Your task to perform on an android device: check the backup settings in the google photos Image 0: 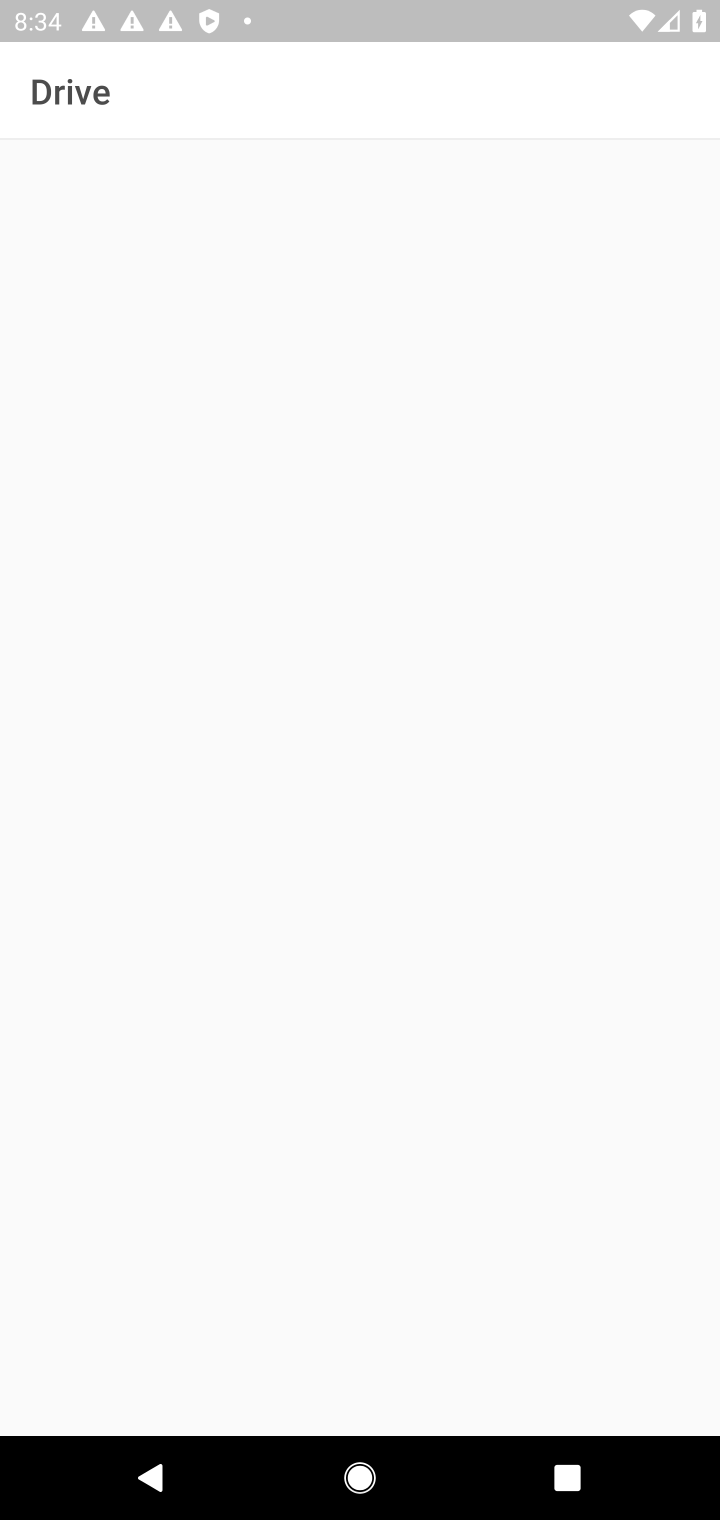
Step 0: click (186, 1255)
Your task to perform on an android device: check the backup settings in the google photos Image 1: 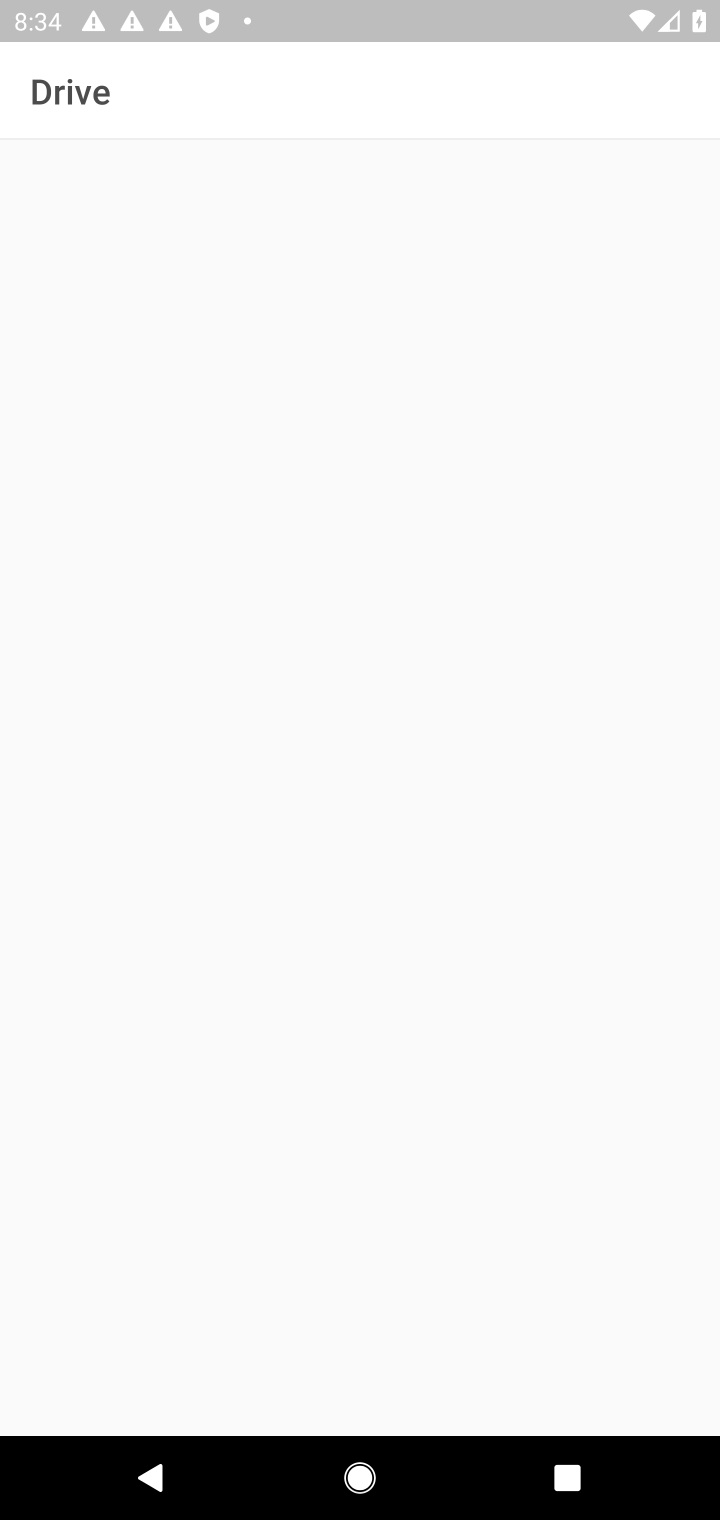
Step 1: press home button
Your task to perform on an android device: check the backup settings in the google photos Image 2: 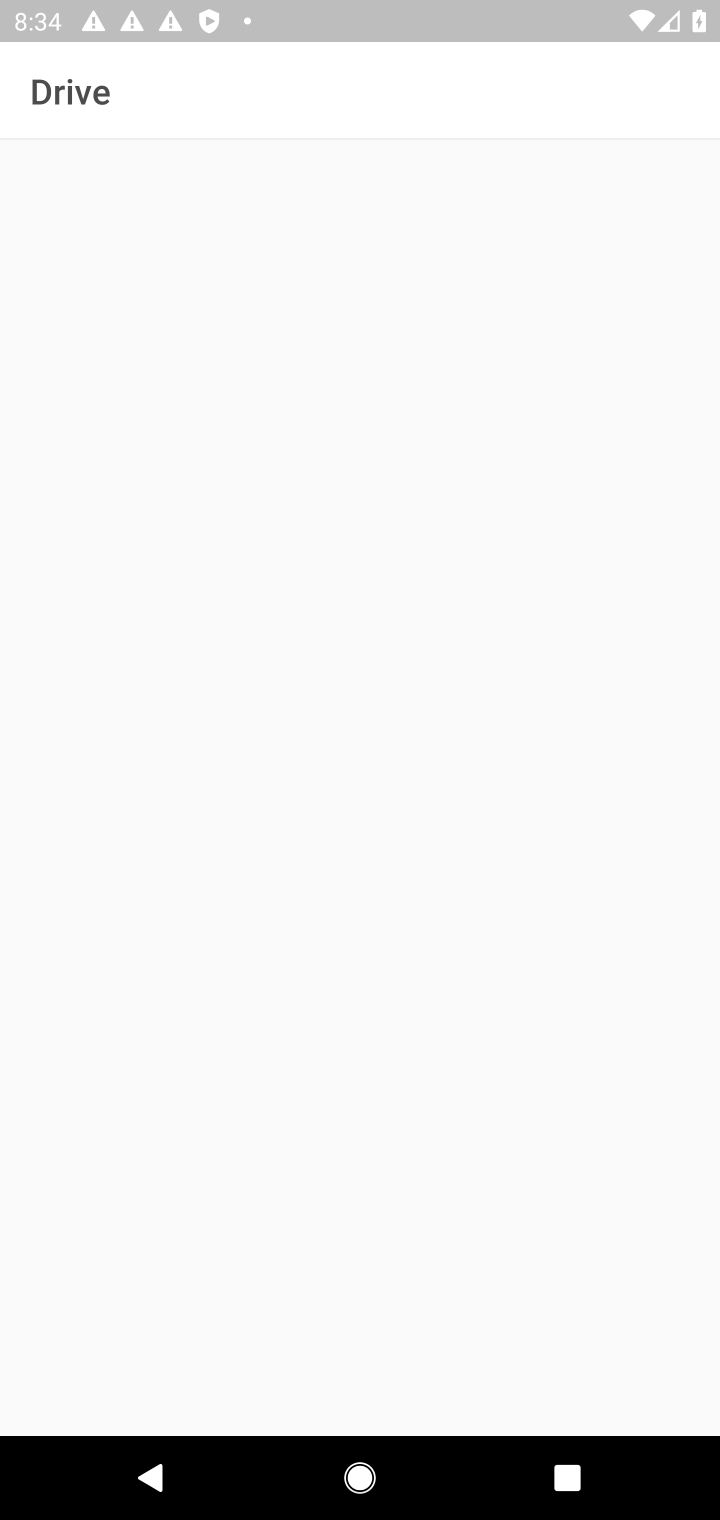
Step 2: press home button
Your task to perform on an android device: check the backup settings in the google photos Image 3: 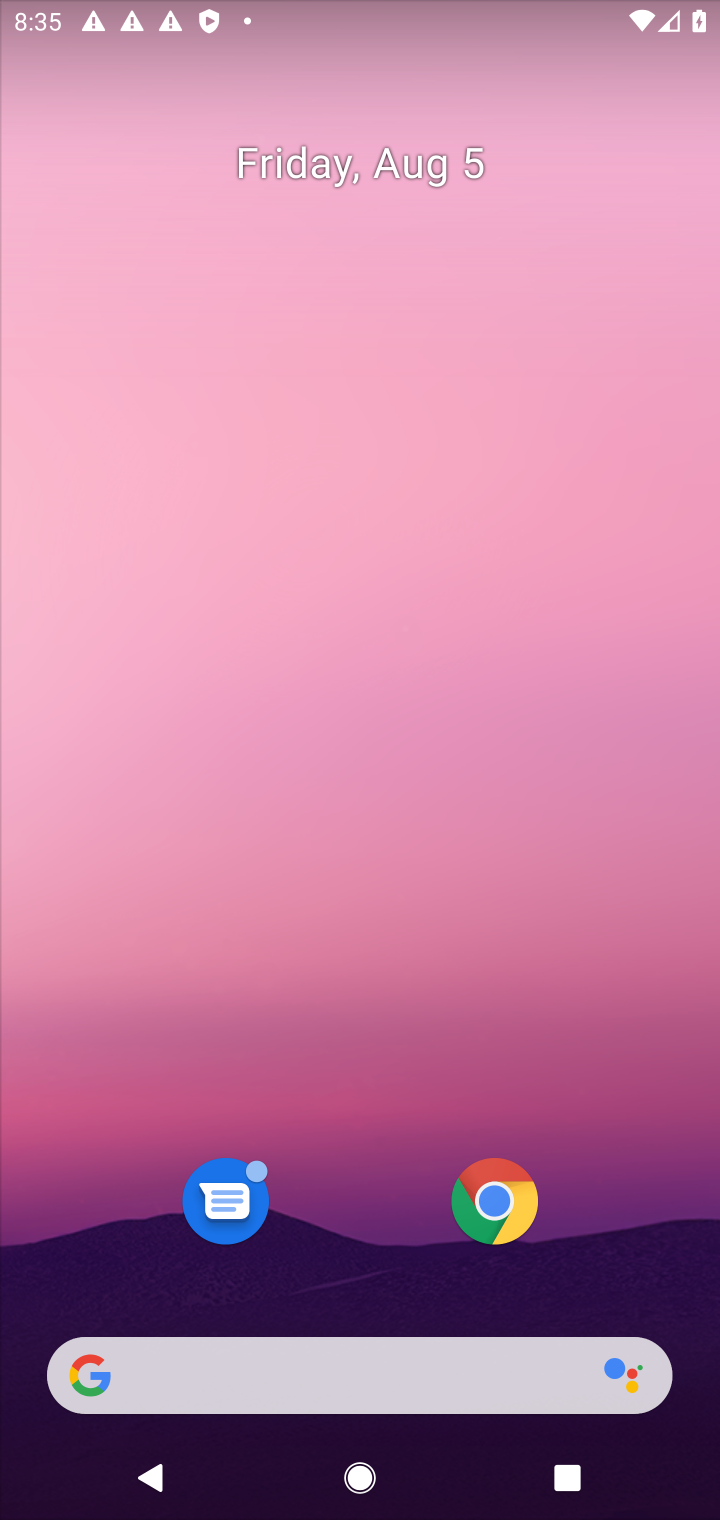
Step 3: drag from (404, 1182) to (372, 519)
Your task to perform on an android device: check the backup settings in the google photos Image 4: 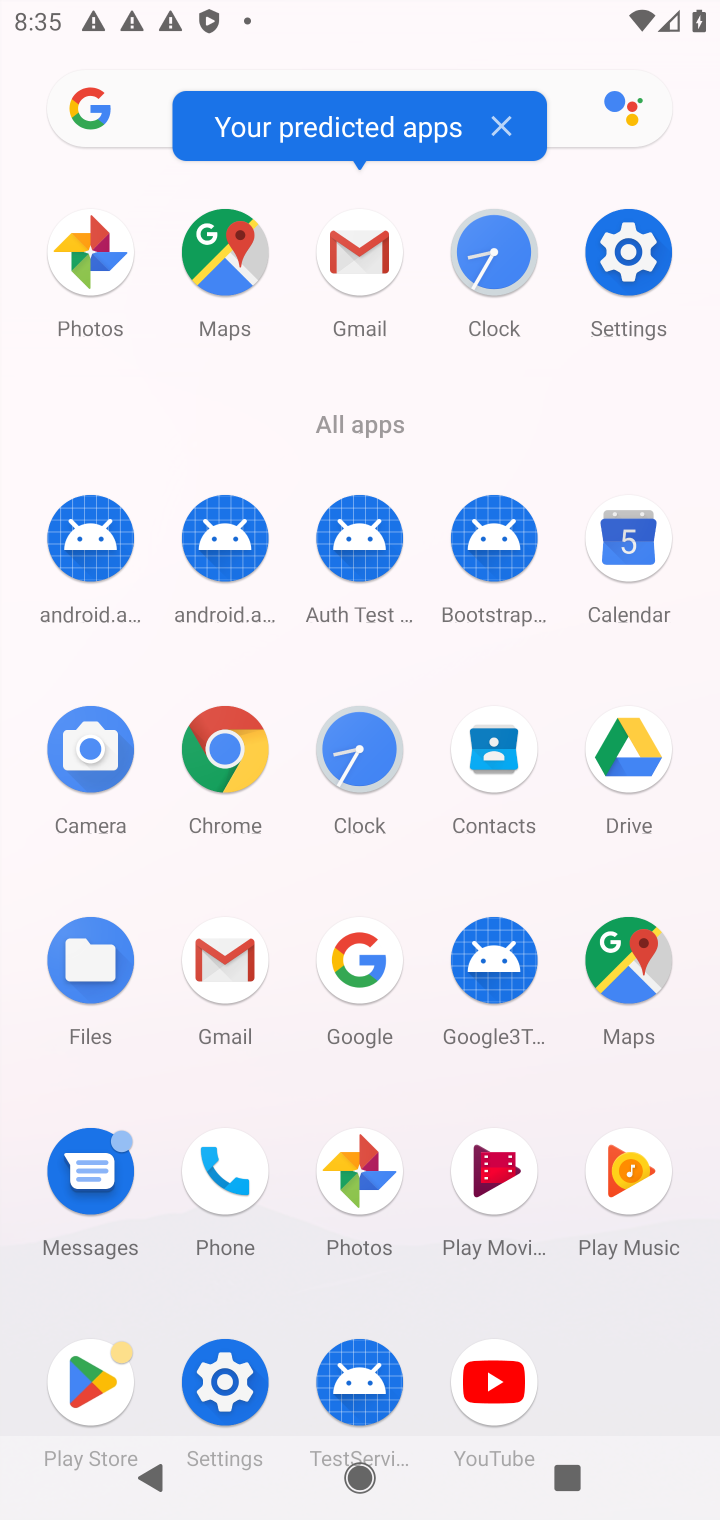
Step 4: click (348, 1154)
Your task to perform on an android device: check the backup settings in the google photos Image 5: 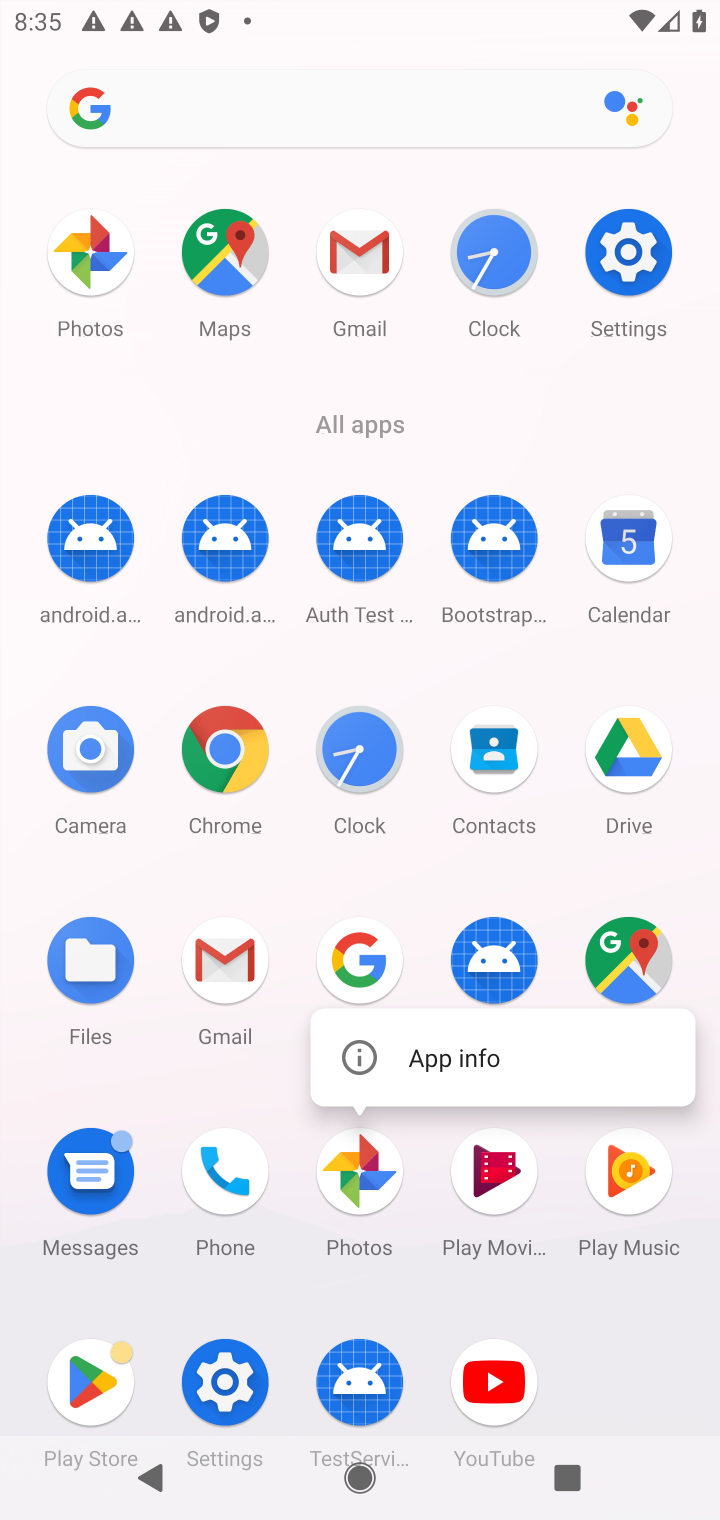
Step 5: click (412, 1066)
Your task to perform on an android device: check the backup settings in the google photos Image 6: 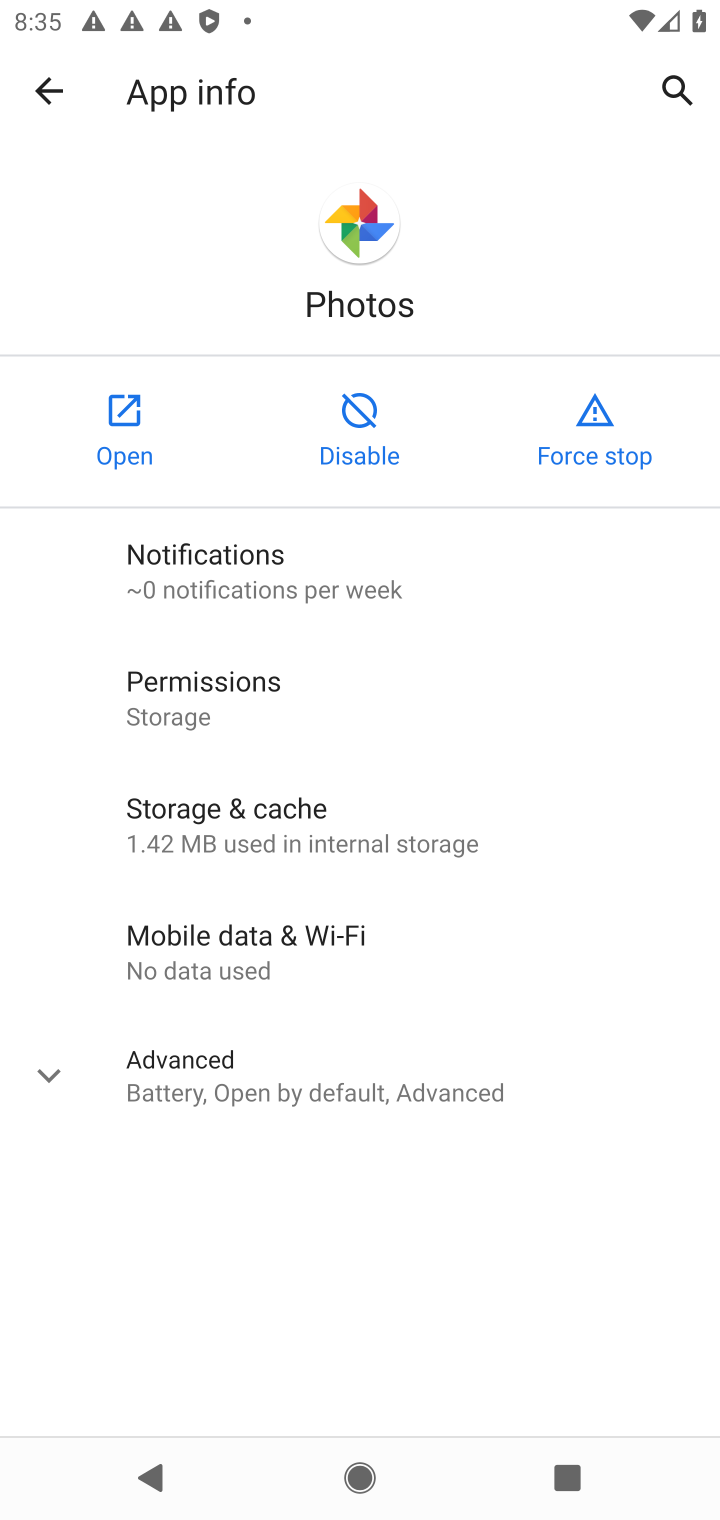
Step 6: click (134, 422)
Your task to perform on an android device: check the backup settings in the google photos Image 7: 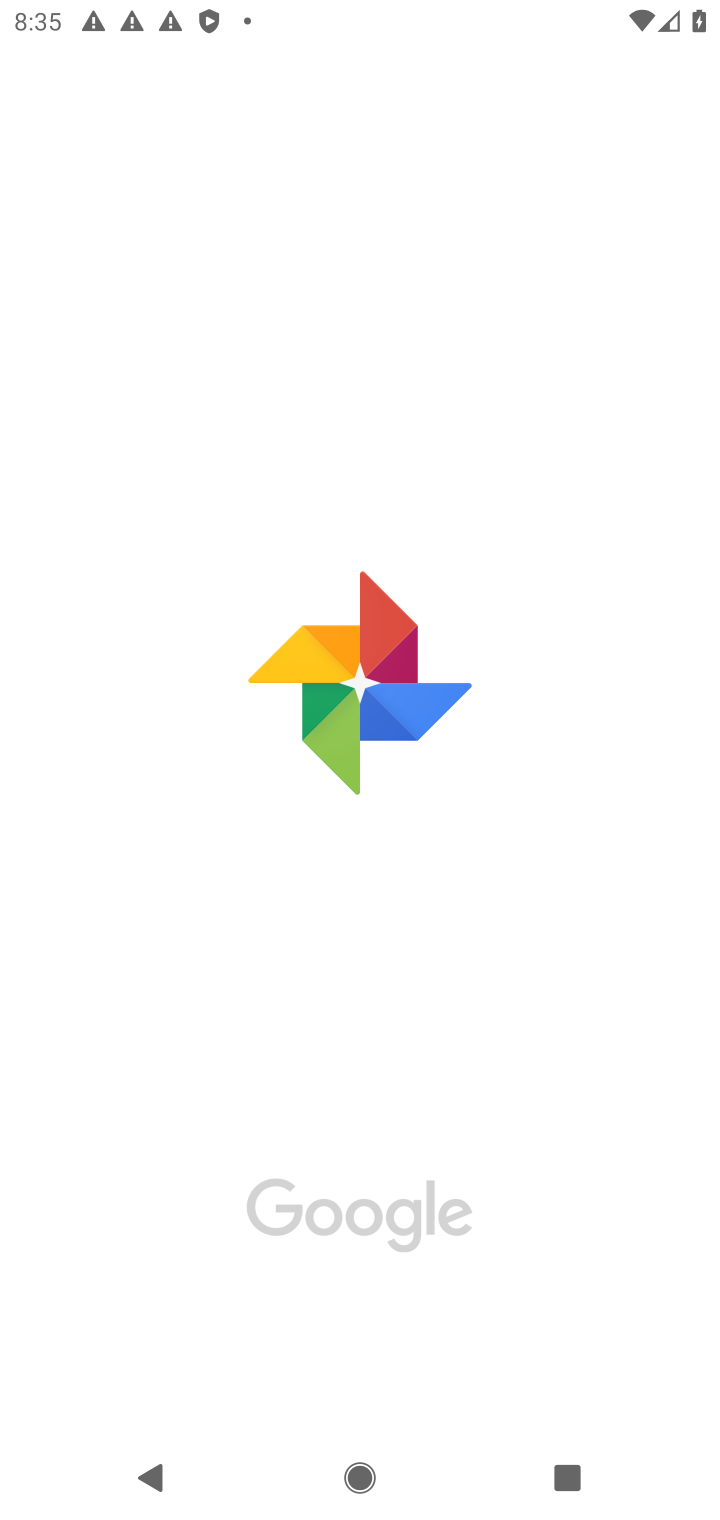
Step 7: click (99, 424)
Your task to perform on an android device: check the backup settings in the google photos Image 8: 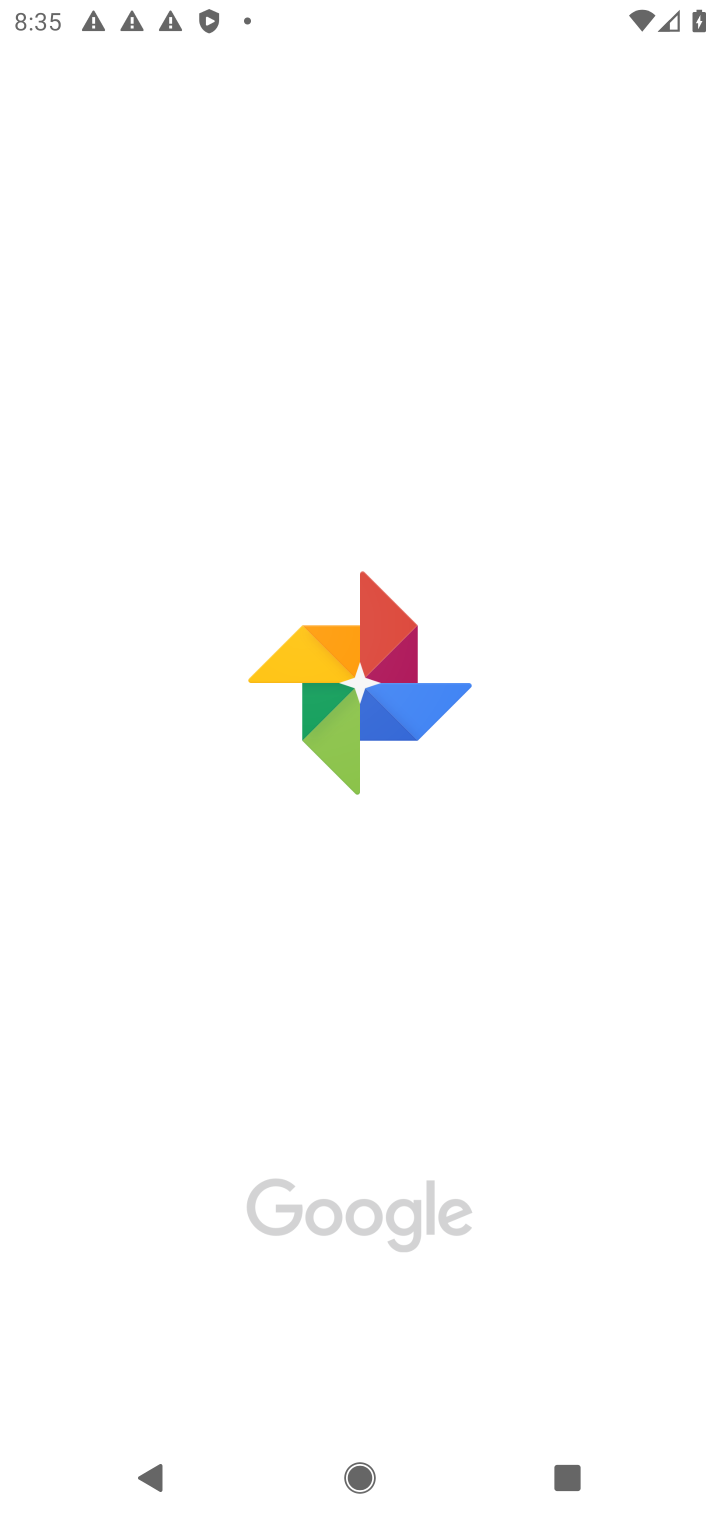
Step 8: drag from (252, 974) to (306, 498)
Your task to perform on an android device: check the backup settings in the google photos Image 9: 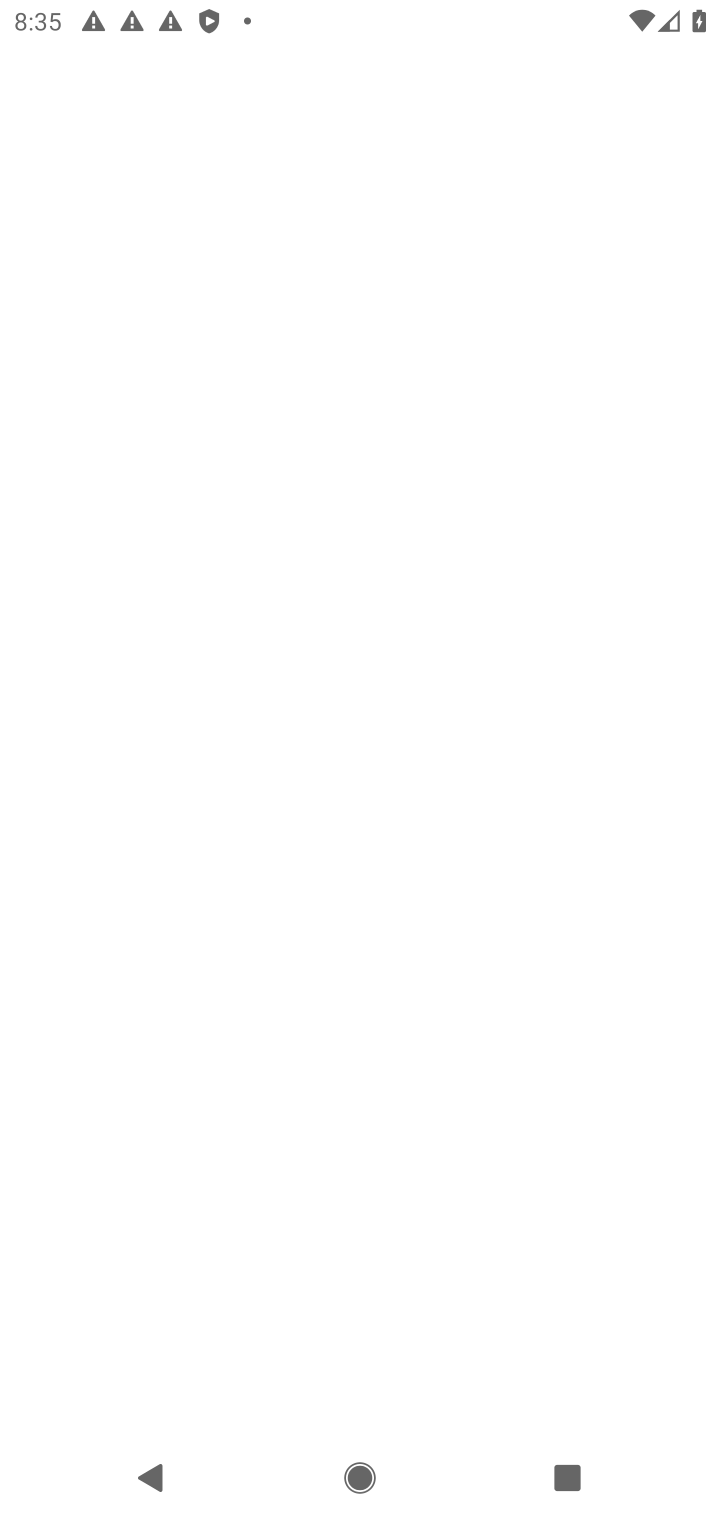
Step 9: drag from (149, 936) to (278, 433)
Your task to perform on an android device: check the backup settings in the google photos Image 10: 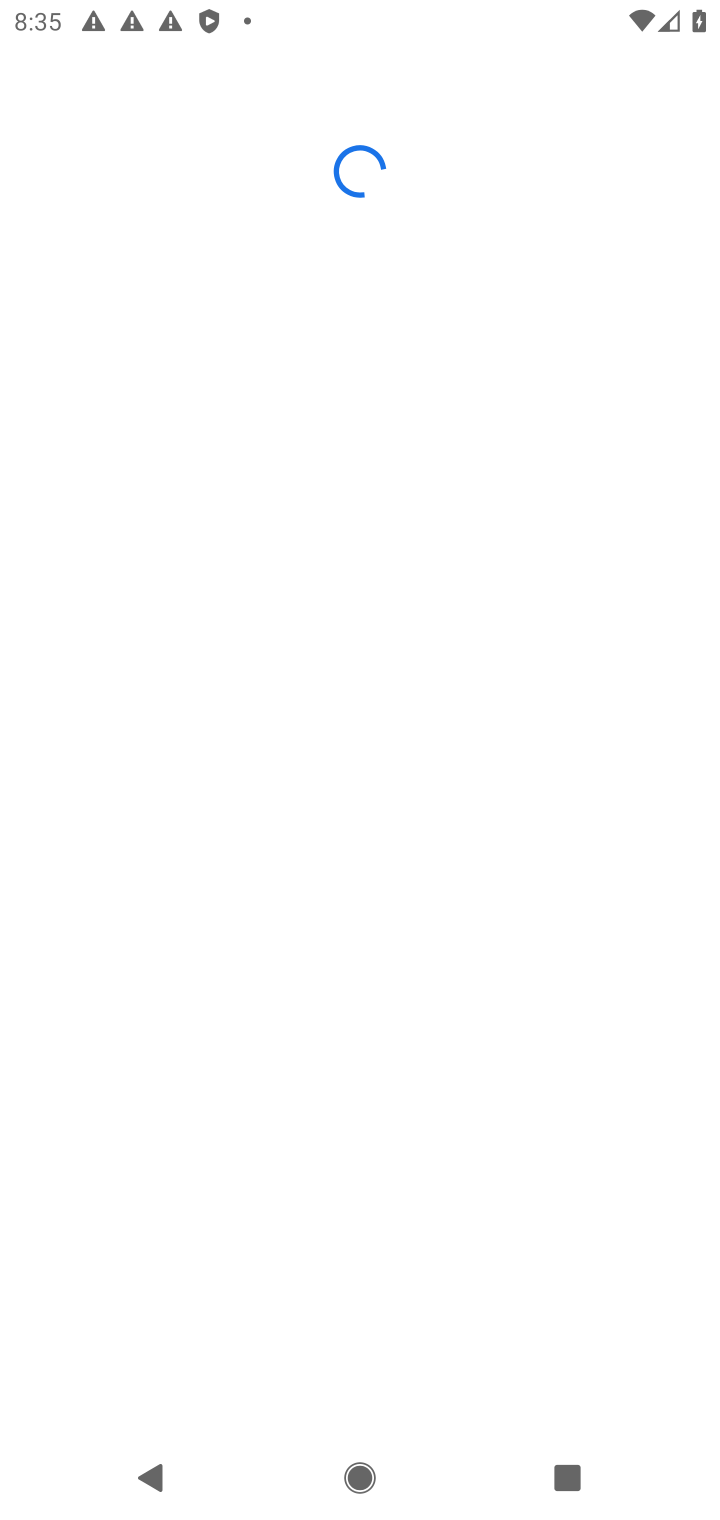
Step 10: drag from (369, 450) to (458, 1018)
Your task to perform on an android device: check the backup settings in the google photos Image 11: 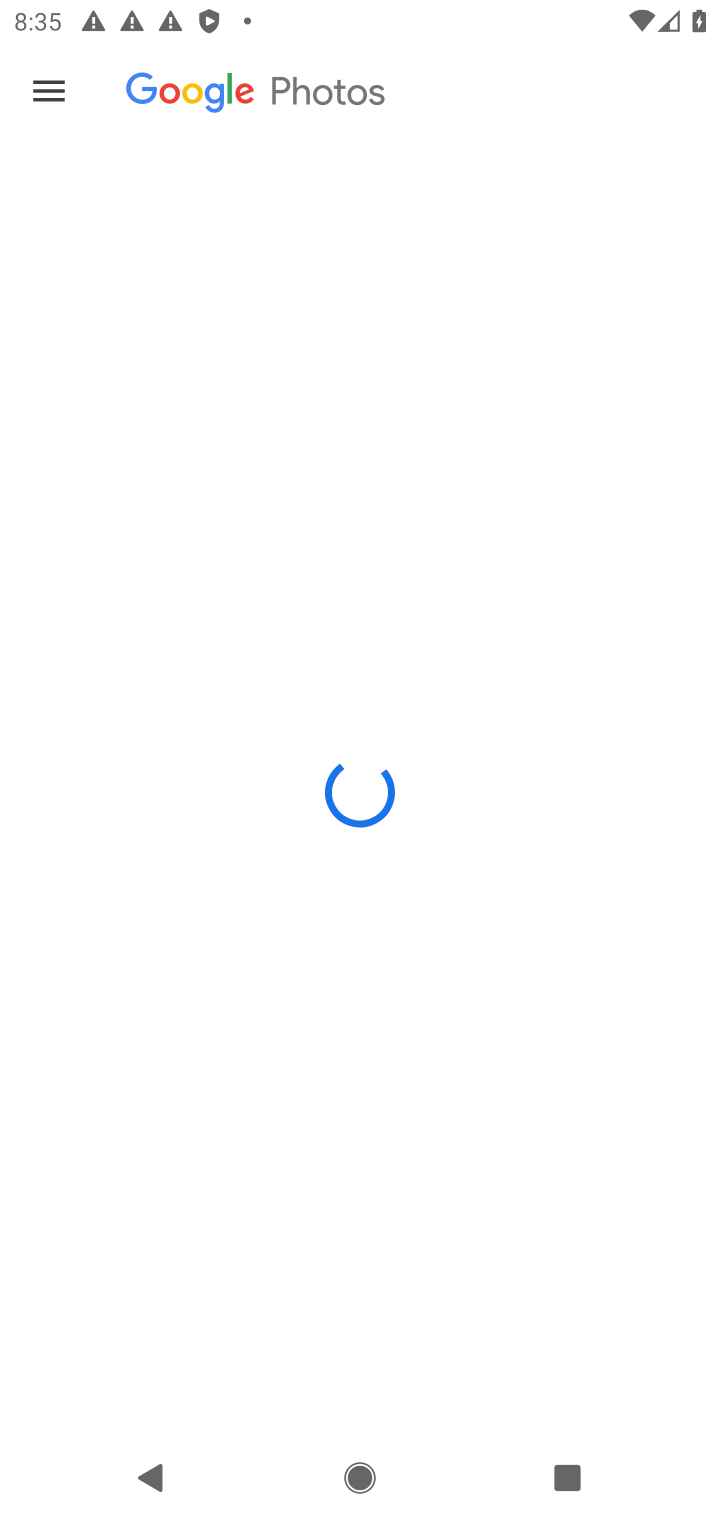
Step 11: click (46, 77)
Your task to perform on an android device: check the backup settings in the google photos Image 12: 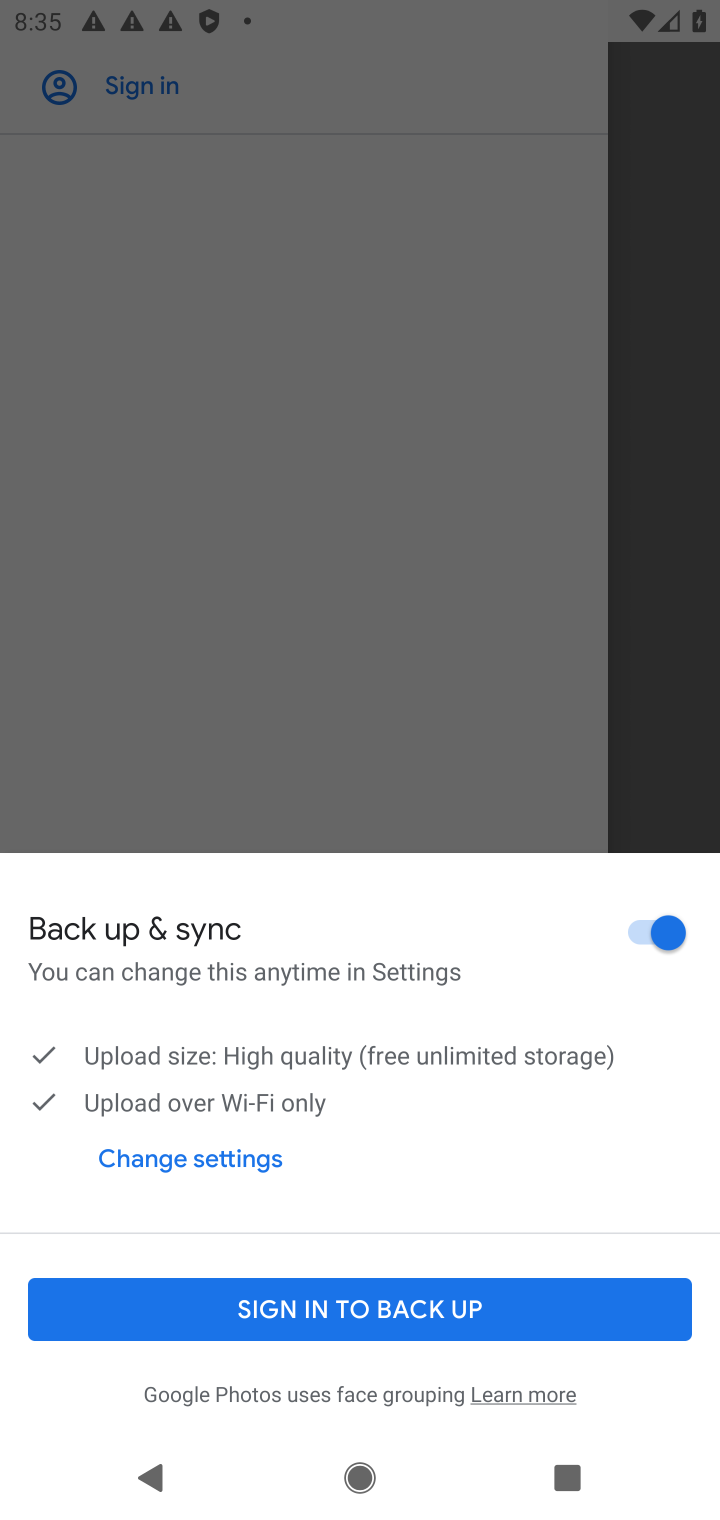
Step 12: click (370, 1249)
Your task to perform on an android device: check the backup settings in the google photos Image 13: 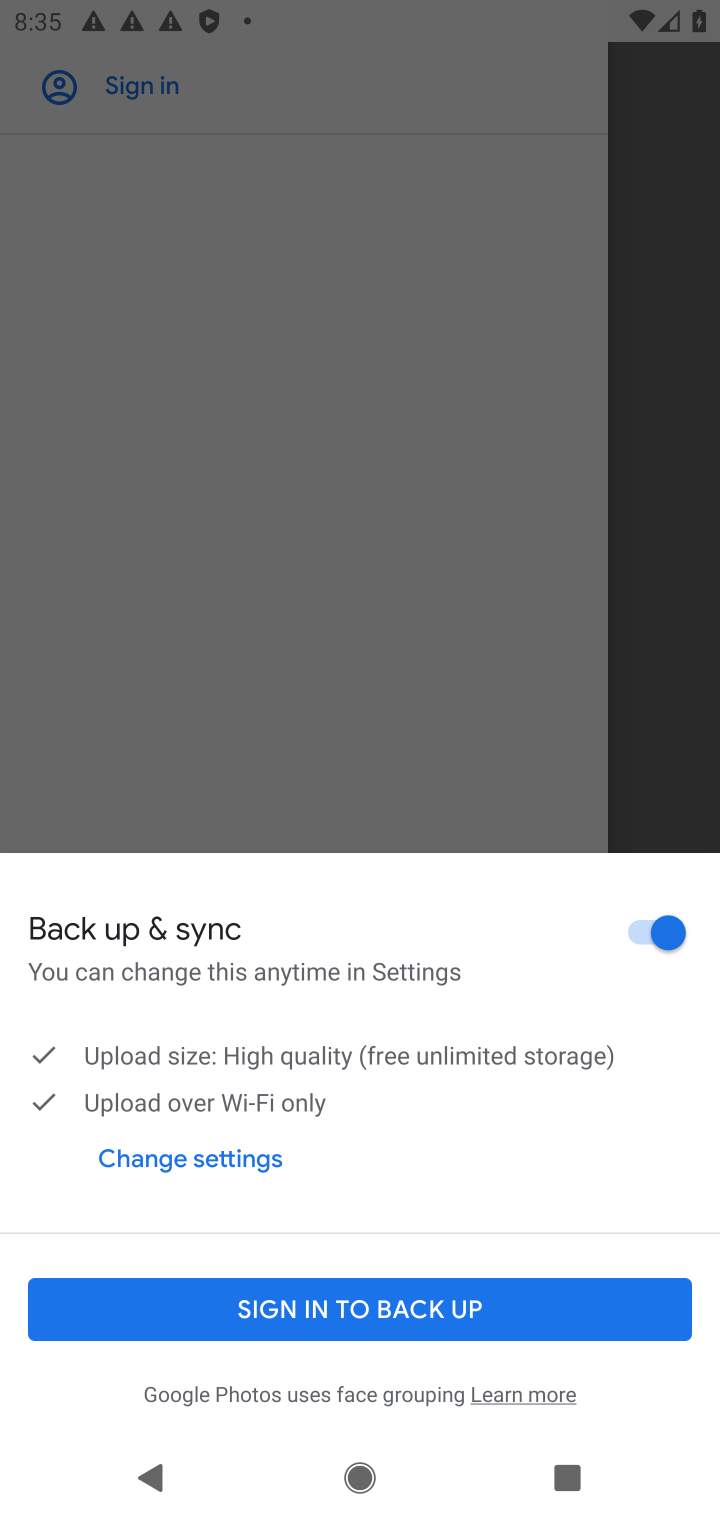
Step 13: click (340, 1293)
Your task to perform on an android device: check the backup settings in the google photos Image 14: 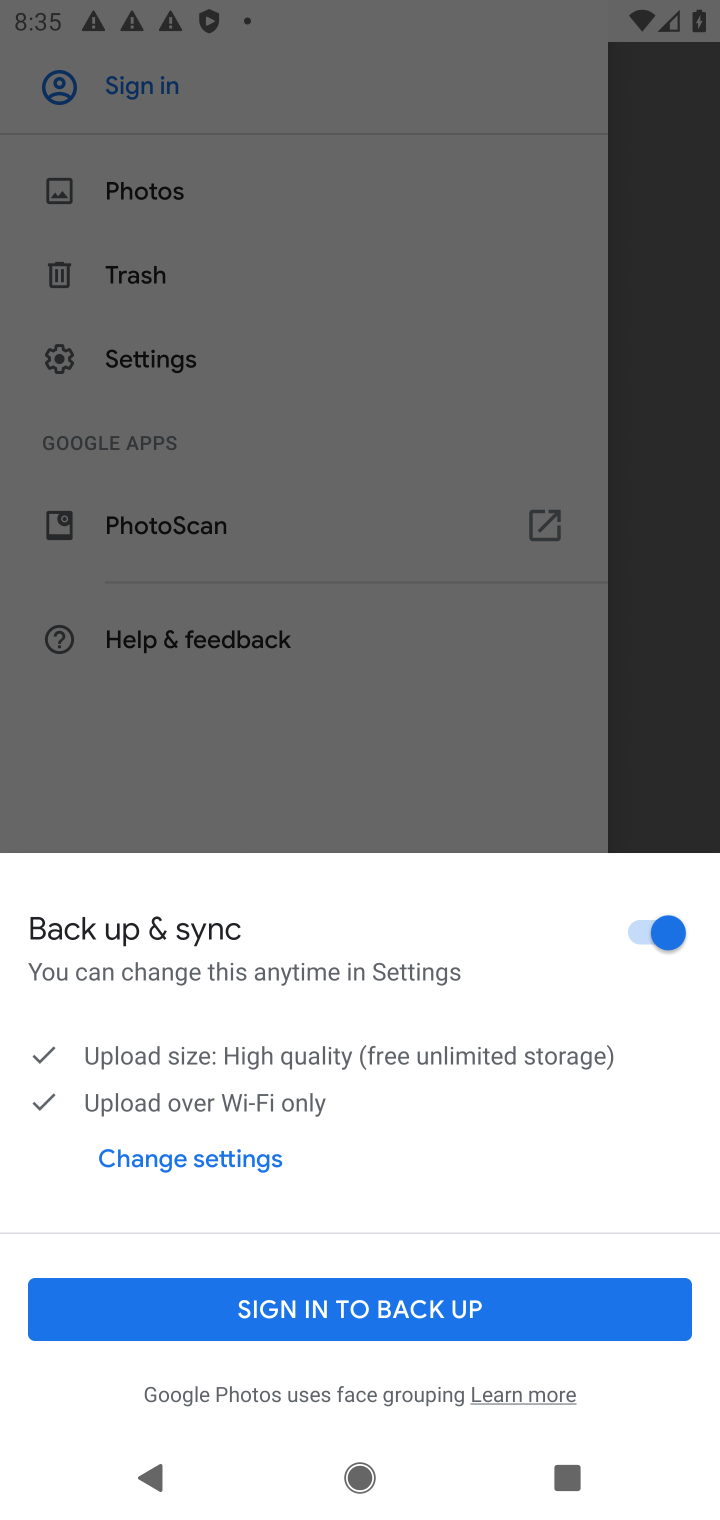
Step 14: click (347, 1295)
Your task to perform on an android device: check the backup settings in the google photos Image 15: 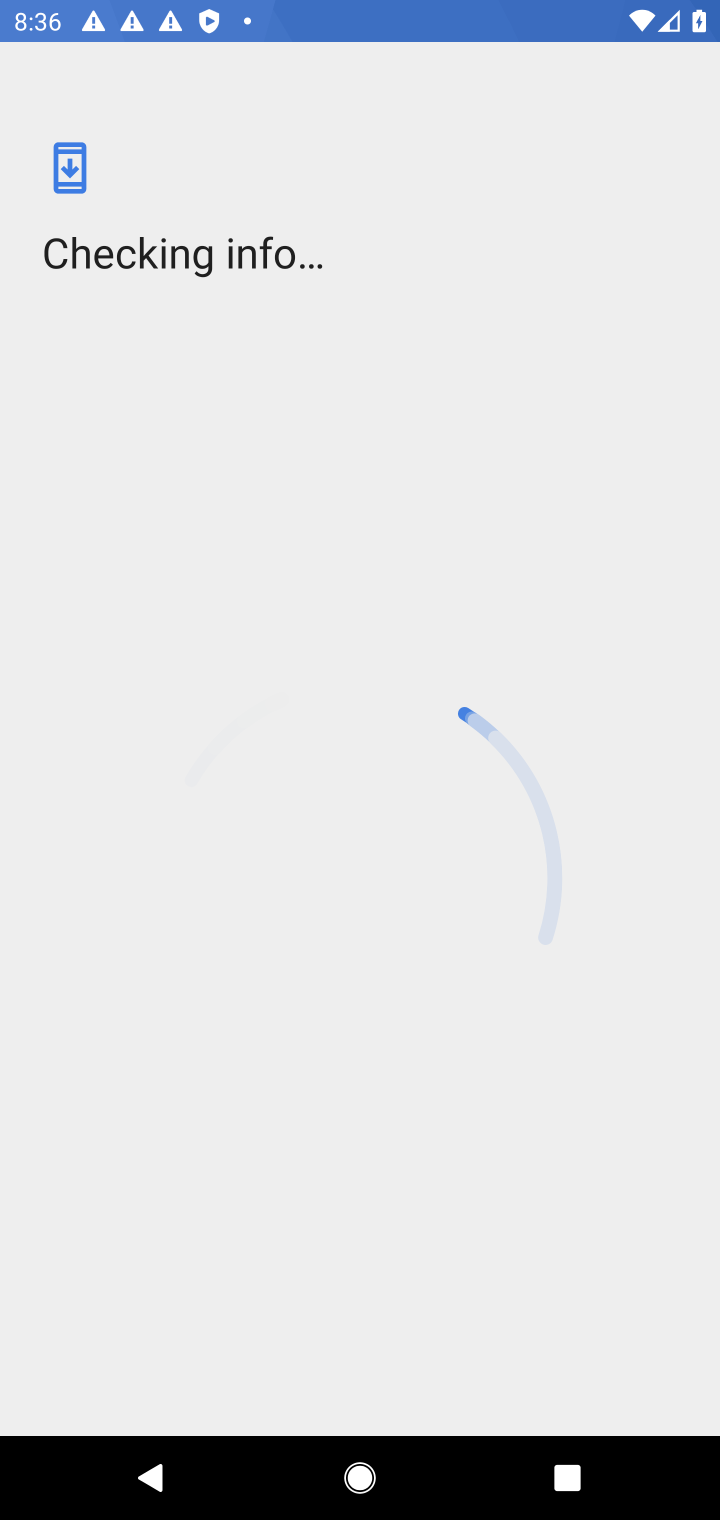
Step 15: task complete